Your task to perform on an android device: Turn on the flashlight Image 0: 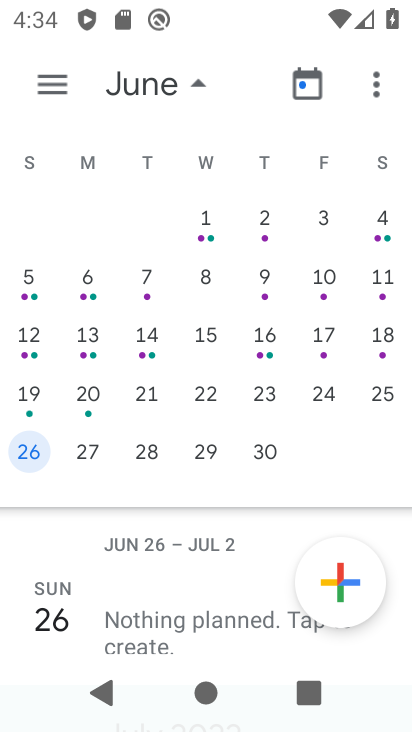
Step 0: press home button
Your task to perform on an android device: Turn on the flashlight Image 1: 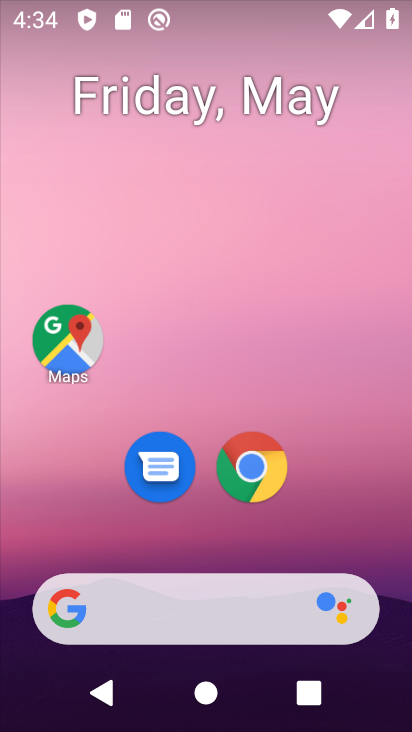
Step 1: task complete